Your task to perform on an android device: turn pop-ups on in chrome Image 0: 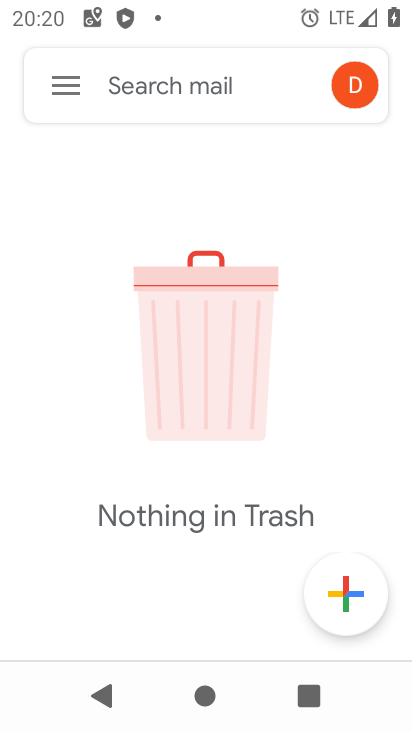
Step 0: press home button
Your task to perform on an android device: turn pop-ups on in chrome Image 1: 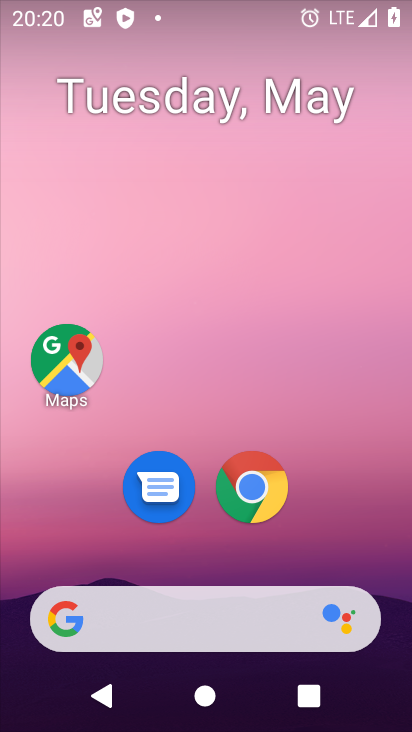
Step 1: click (256, 490)
Your task to perform on an android device: turn pop-ups on in chrome Image 2: 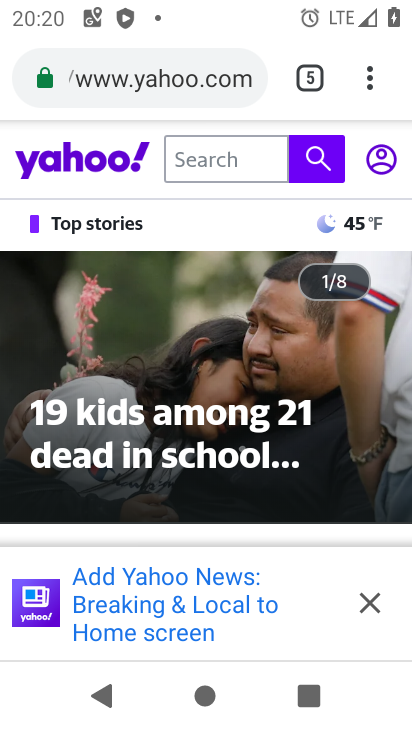
Step 2: click (371, 74)
Your task to perform on an android device: turn pop-ups on in chrome Image 3: 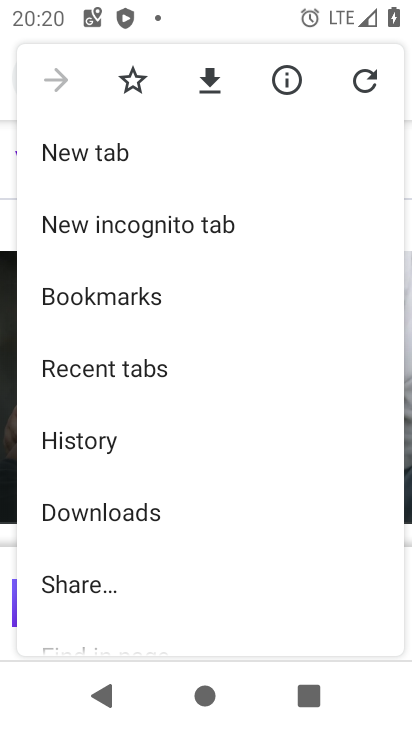
Step 3: drag from (232, 479) to (225, 104)
Your task to perform on an android device: turn pop-ups on in chrome Image 4: 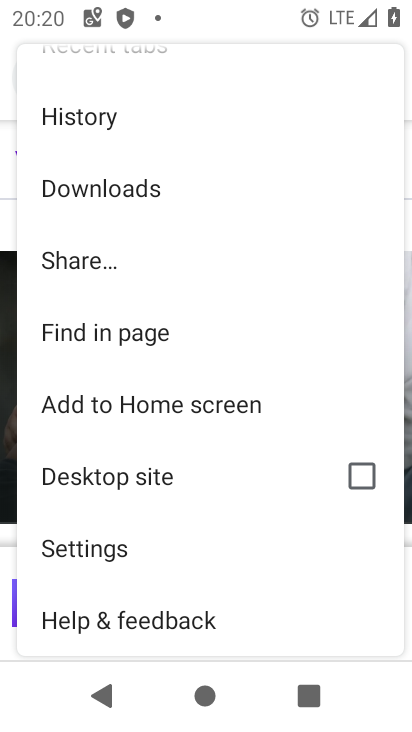
Step 4: click (103, 545)
Your task to perform on an android device: turn pop-ups on in chrome Image 5: 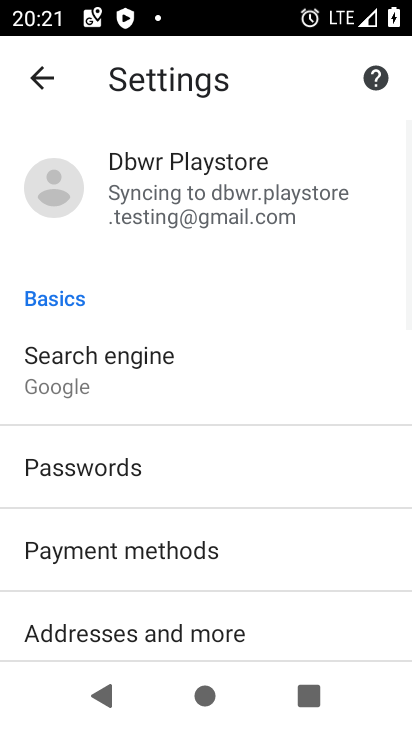
Step 5: drag from (262, 540) to (191, 94)
Your task to perform on an android device: turn pop-ups on in chrome Image 6: 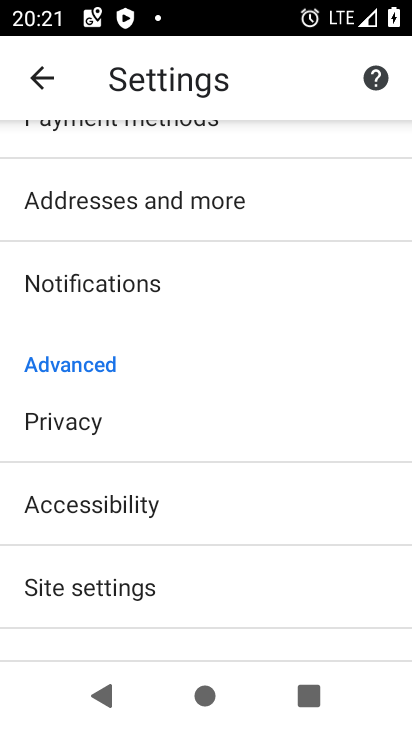
Step 6: drag from (201, 545) to (201, 294)
Your task to perform on an android device: turn pop-ups on in chrome Image 7: 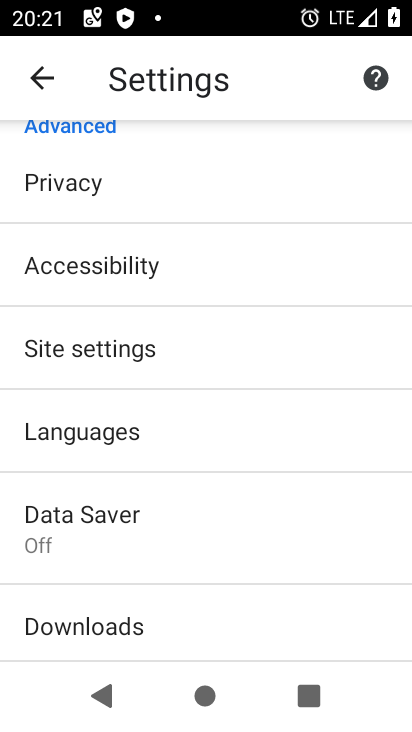
Step 7: click (107, 346)
Your task to perform on an android device: turn pop-ups on in chrome Image 8: 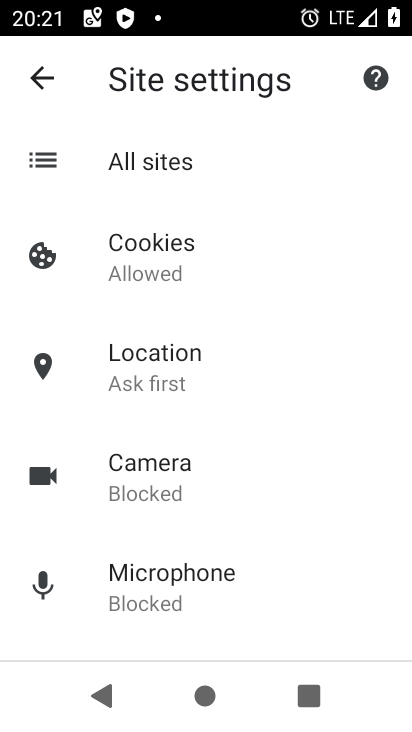
Step 8: drag from (227, 482) to (228, 163)
Your task to perform on an android device: turn pop-ups on in chrome Image 9: 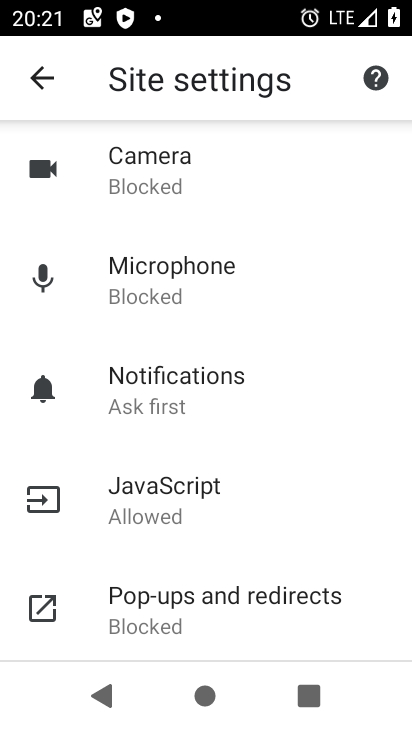
Step 9: click (152, 604)
Your task to perform on an android device: turn pop-ups on in chrome Image 10: 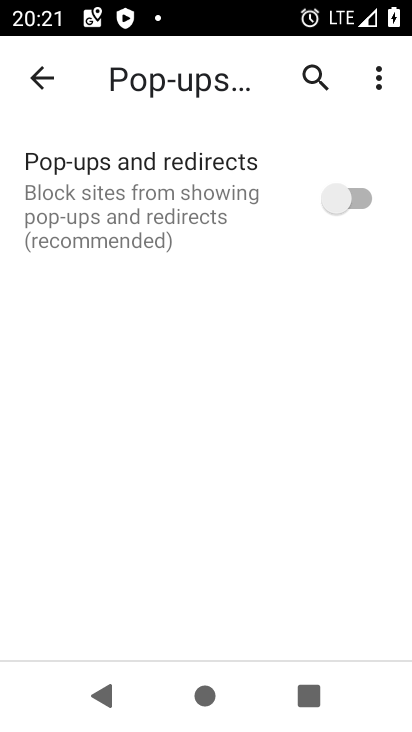
Step 10: click (346, 196)
Your task to perform on an android device: turn pop-ups on in chrome Image 11: 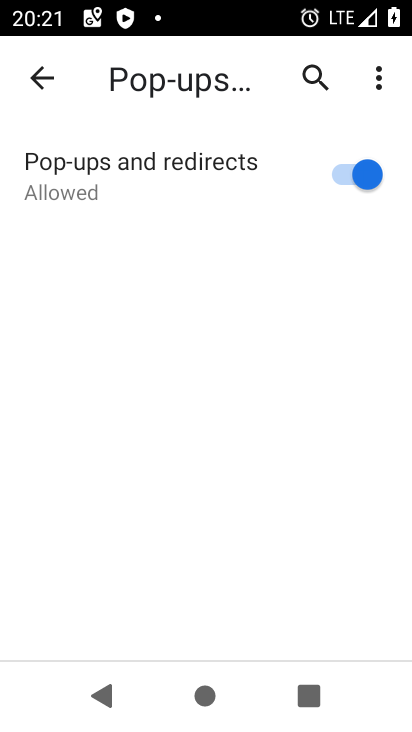
Step 11: task complete